Your task to perform on an android device: install app "DoorDash - Dasher" Image 0: 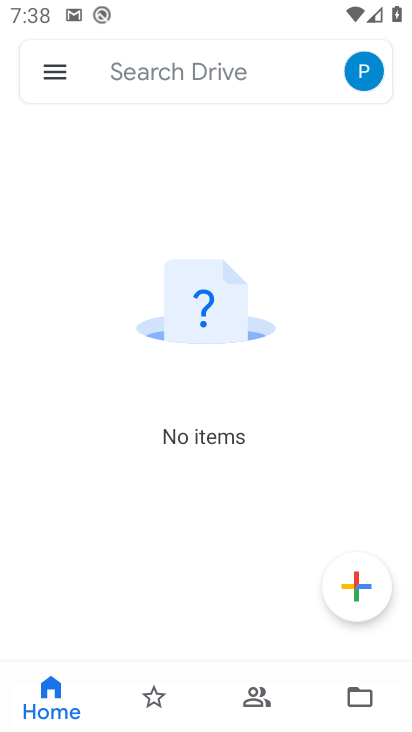
Step 0: press home button
Your task to perform on an android device: install app "DoorDash - Dasher" Image 1: 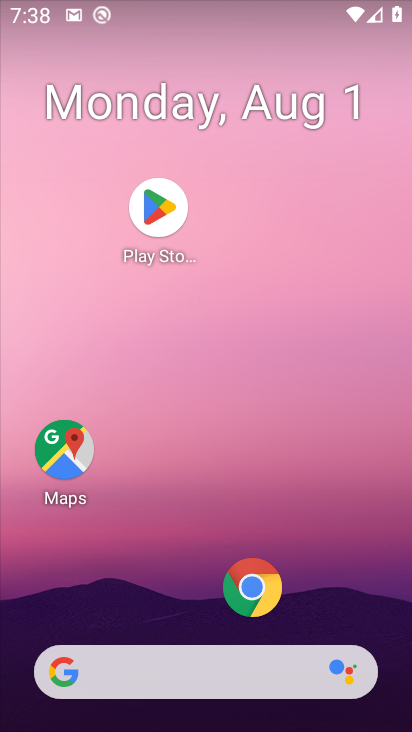
Step 1: click (188, 216)
Your task to perform on an android device: install app "DoorDash - Dasher" Image 2: 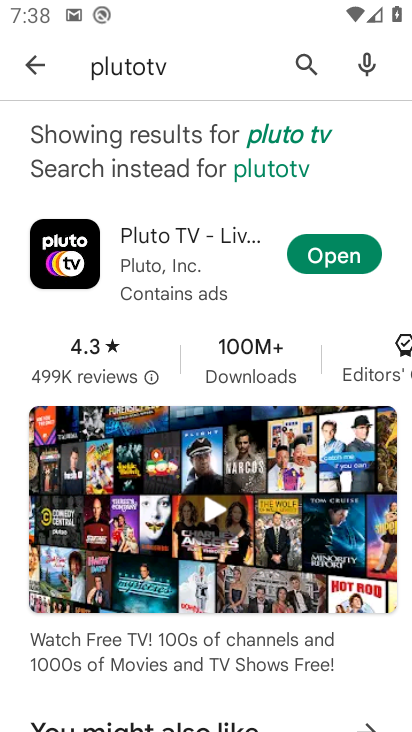
Step 2: click (302, 68)
Your task to perform on an android device: install app "DoorDash - Dasher" Image 3: 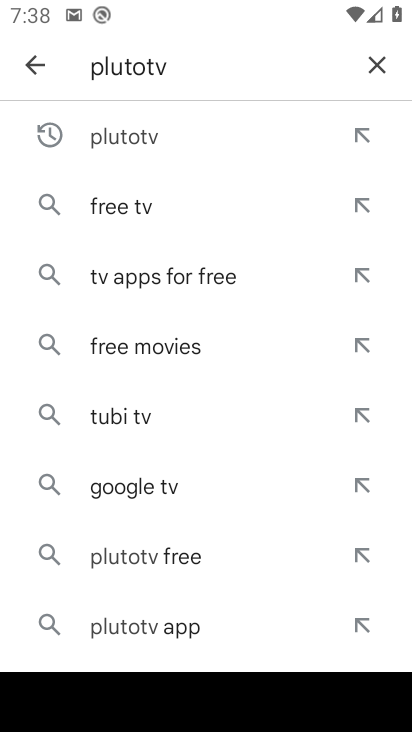
Step 3: click (367, 62)
Your task to perform on an android device: install app "DoorDash - Dasher" Image 4: 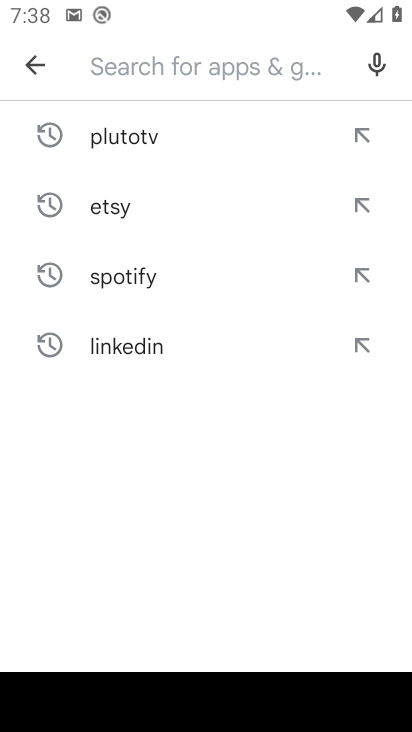
Step 4: type "doordash"
Your task to perform on an android device: install app "DoorDash - Dasher" Image 5: 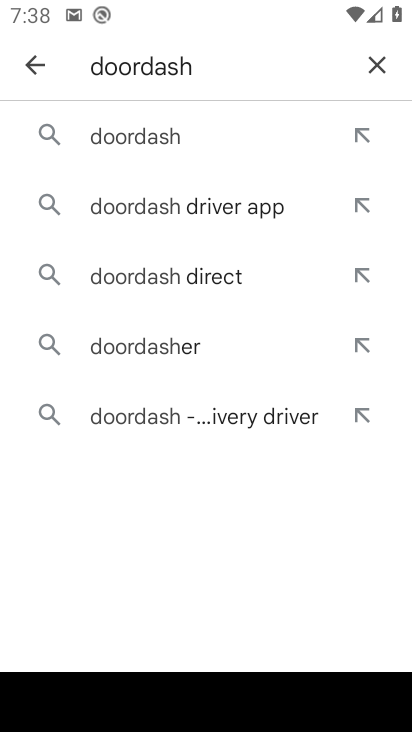
Step 5: click (239, 150)
Your task to perform on an android device: install app "DoorDash - Dasher" Image 6: 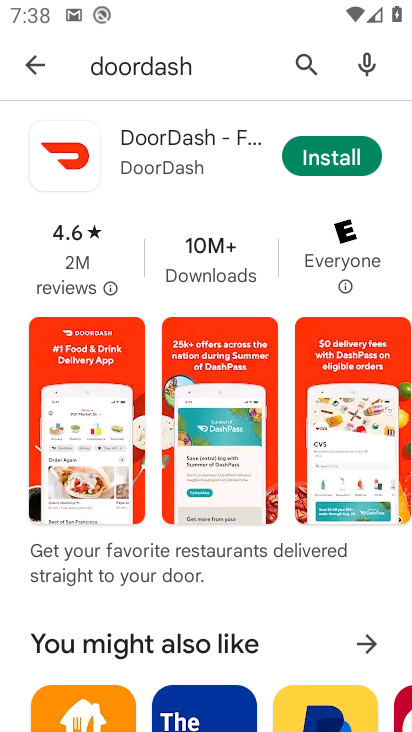
Step 6: click (333, 150)
Your task to perform on an android device: install app "DoorDash - Dasher" Image 7: 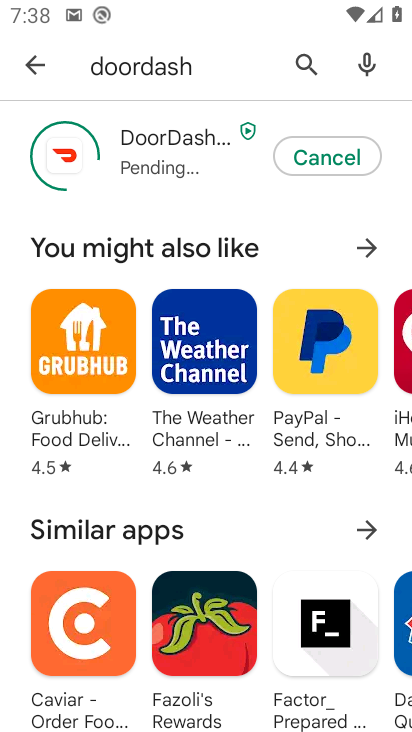
Step 7: task complete